Your task to perform on an android device: Open ESPN.com Image 0: 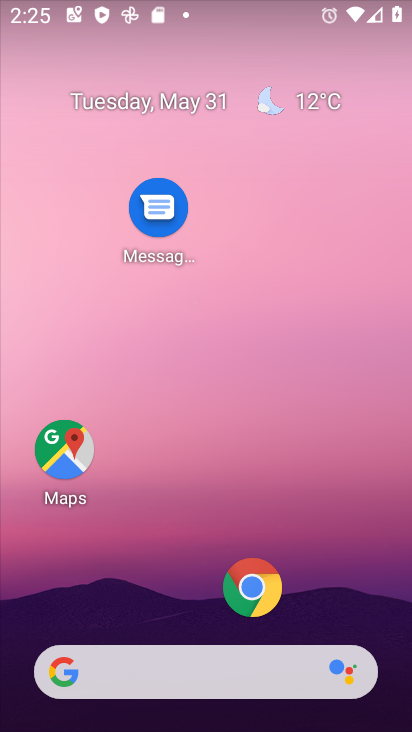
Step 0: drag from (183, 551) to (89, 2)
Your task to perform on an android device: Open ESPN.com Image 1: 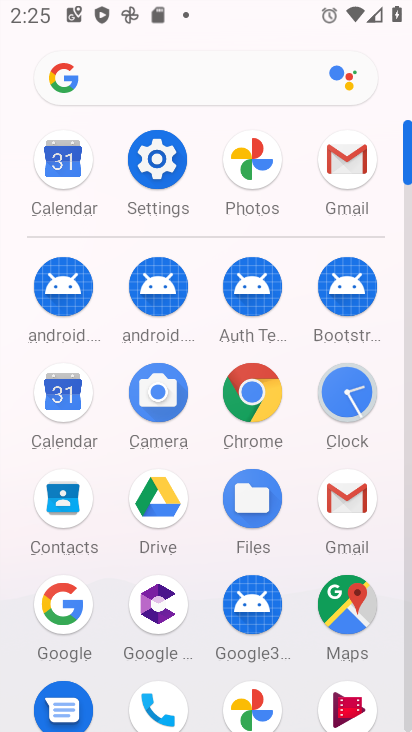
Step 1: click (253, 376)
Your task to perform on an android device: Open ESPN.com Image 2: 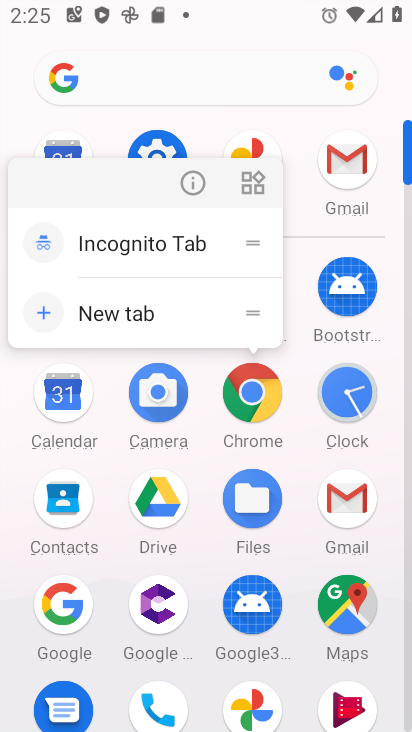
Step 2: click (194, 175)
Your task to perform on an android device: Open ESPN.com Image 3: 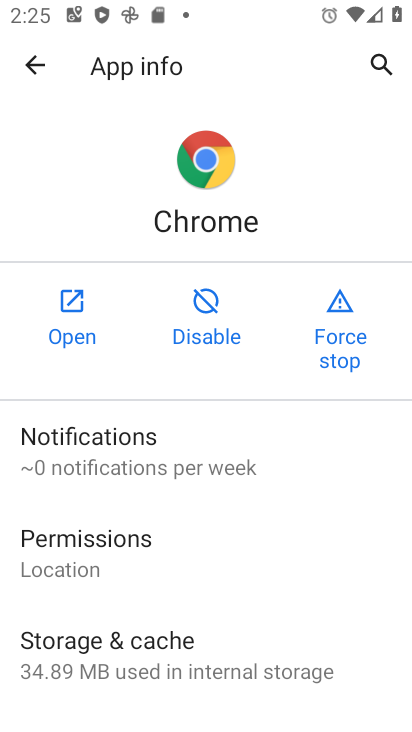
Step 3: click (54, 296)
Your task to perform on an android device: Open ESPN.com Image 4: 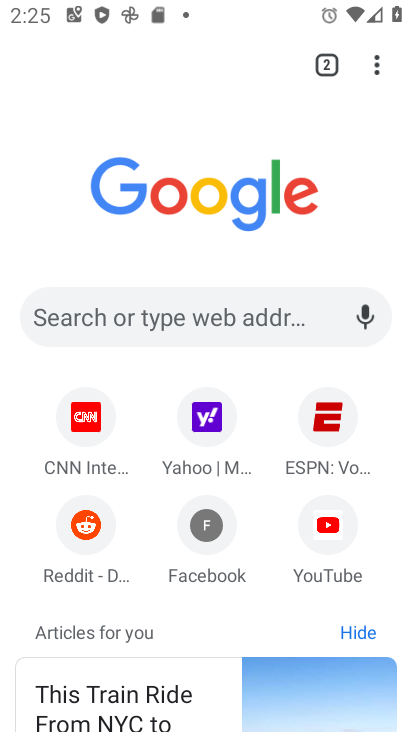
Step 4: click (302, 402)
Your task to perform on an android device: Open ESPN.com Image 5: 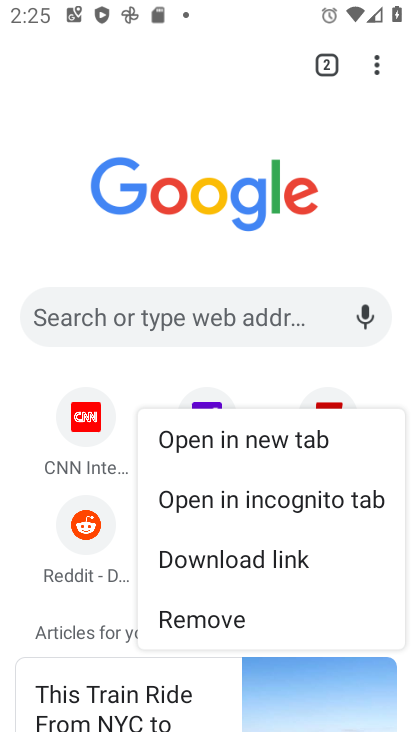
Step 5: click (344, 392)
Your task to perform on an android device: Open ESPN.com Image 6: 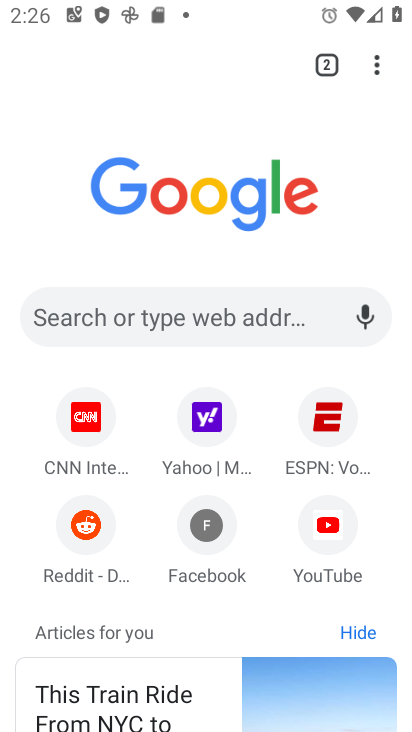
Step 6: click (362, 413)
Your task to perform on an android device: Open ESPN.com Image 7: 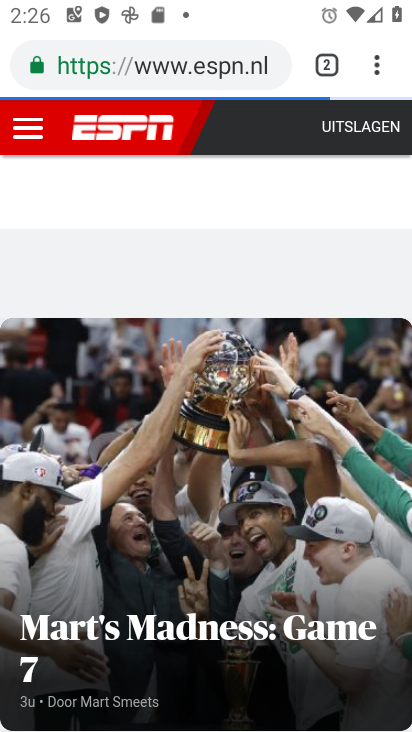
Step 7: task complete